Your task to perform on an android device: Open Chrome and go to settings Image 0: 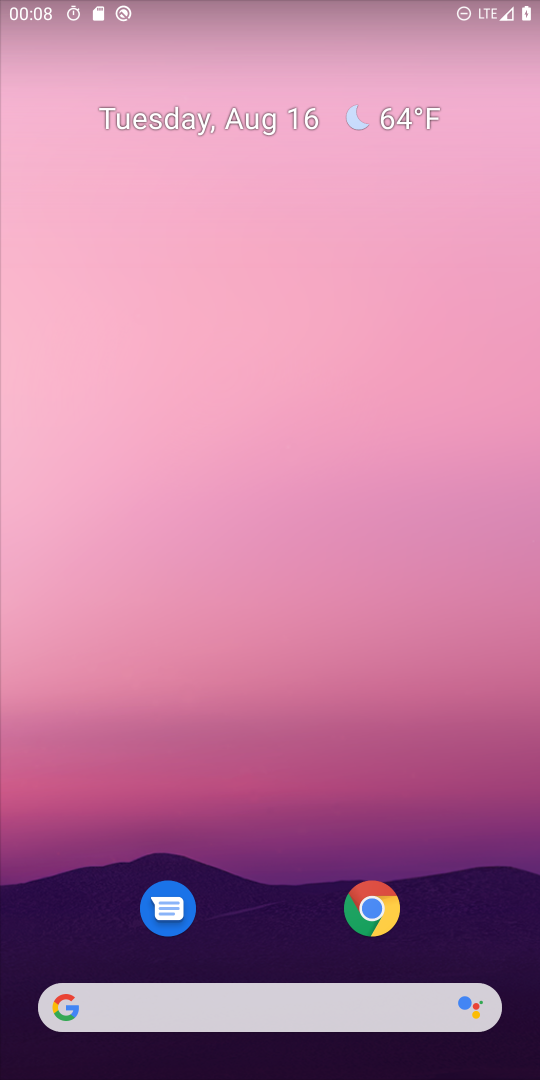
Step 0: click (369, 914)
Your task to perform on an android device: Open Chrome and go to settings Image 1: 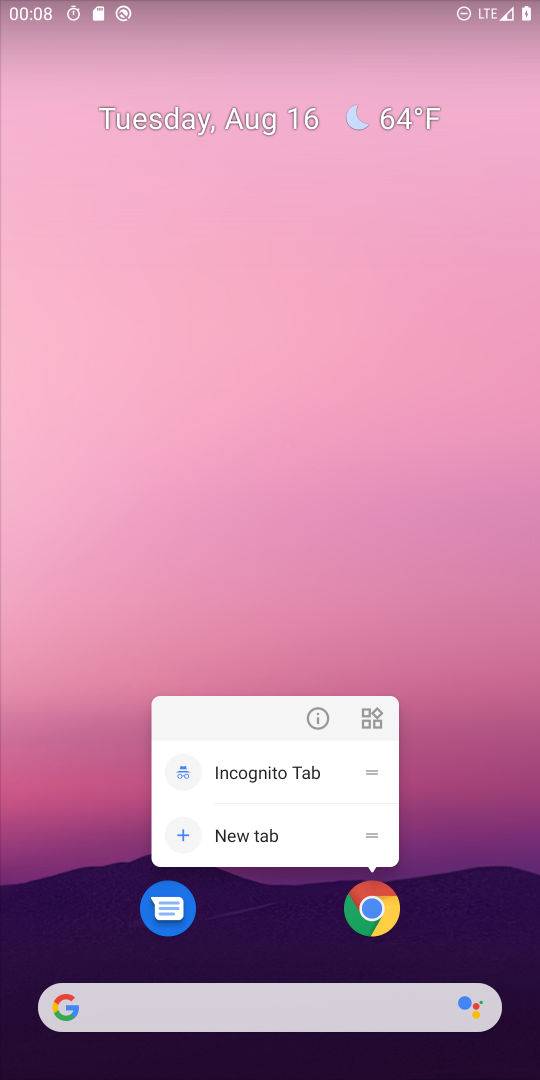
Step 1: click (373, 908)
Your task to perform on an android device: Open Chrome and go to settings Image 2: 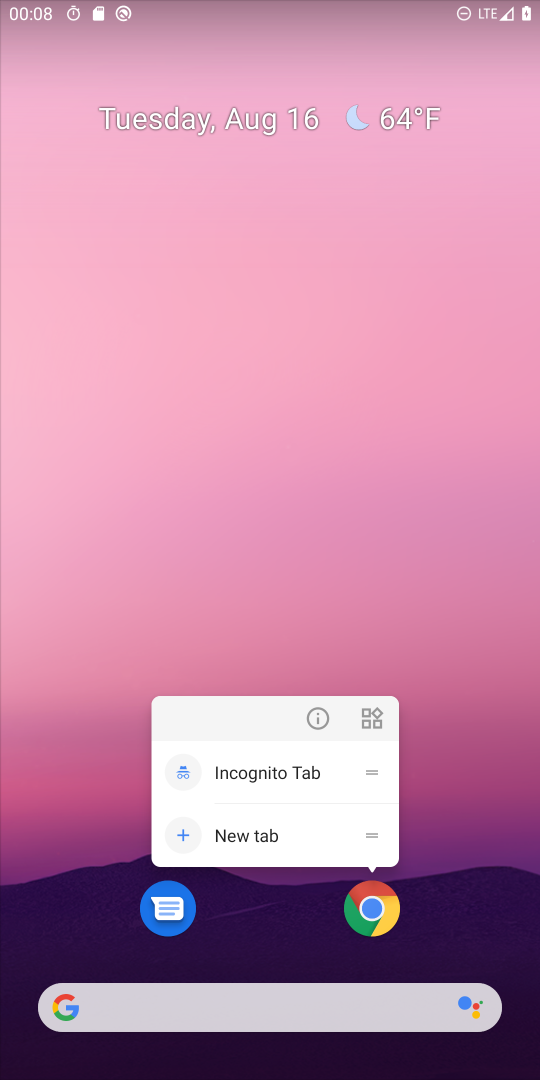
Step 2: click (371, 910)
Your task to perform on an android device: Open Chrome and go to settings Image 3: 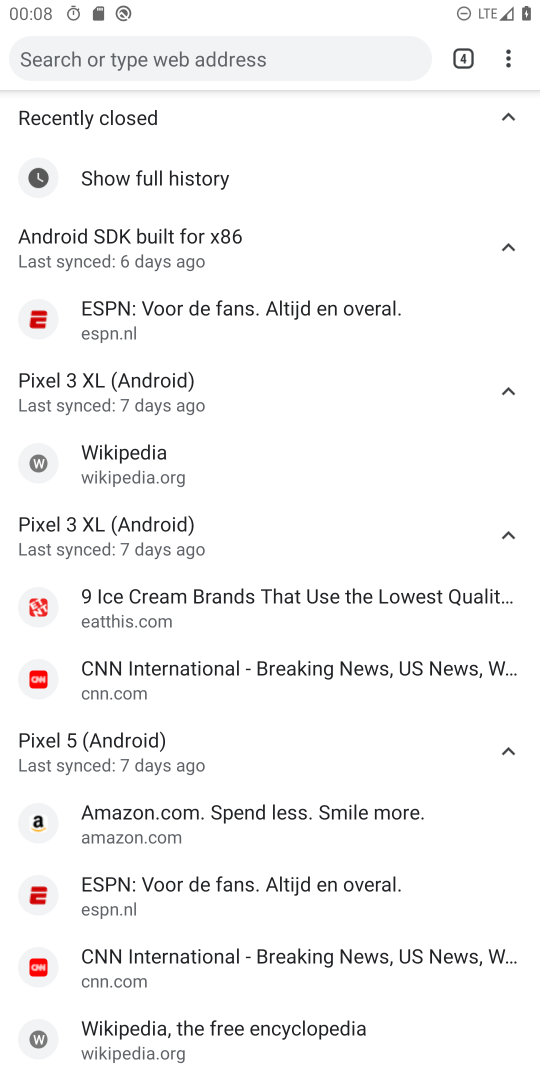
Step 3: click (517, 55)
Your task to perform on an android device: Open Chrome and go to settings Image 4: 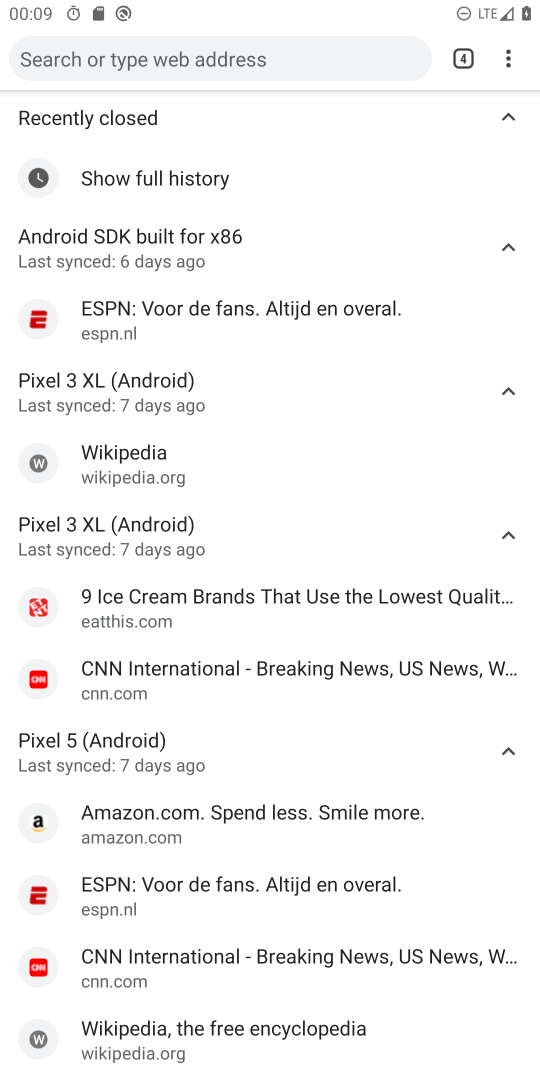
Step 4: click (513, 50)
Your task to perform on an android device: Open Chrome and go to settings Image 5: 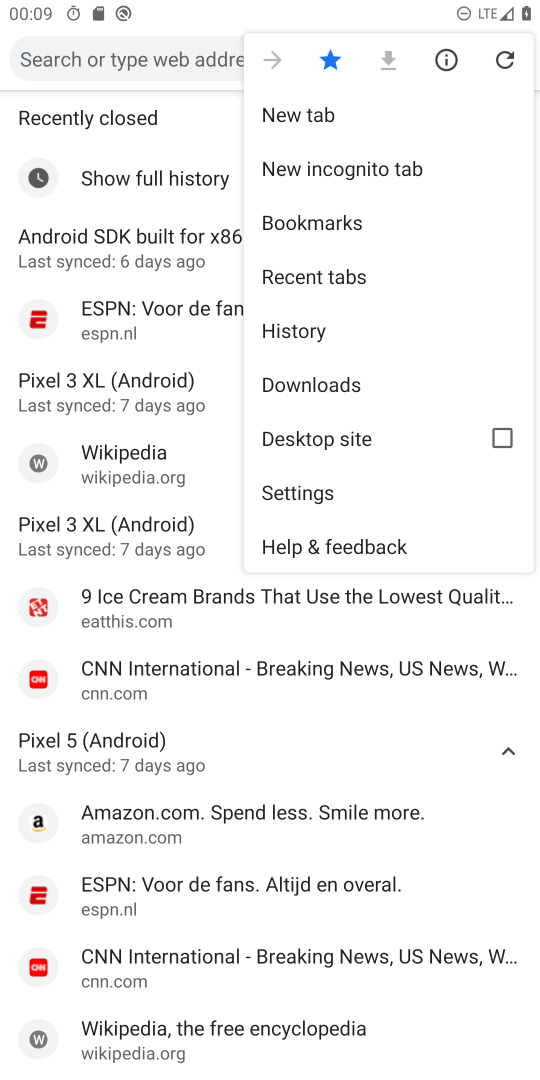
Step 5: click (296, 487)
Your task to perform on an android device: Open Chrome and go to settings Image 6: 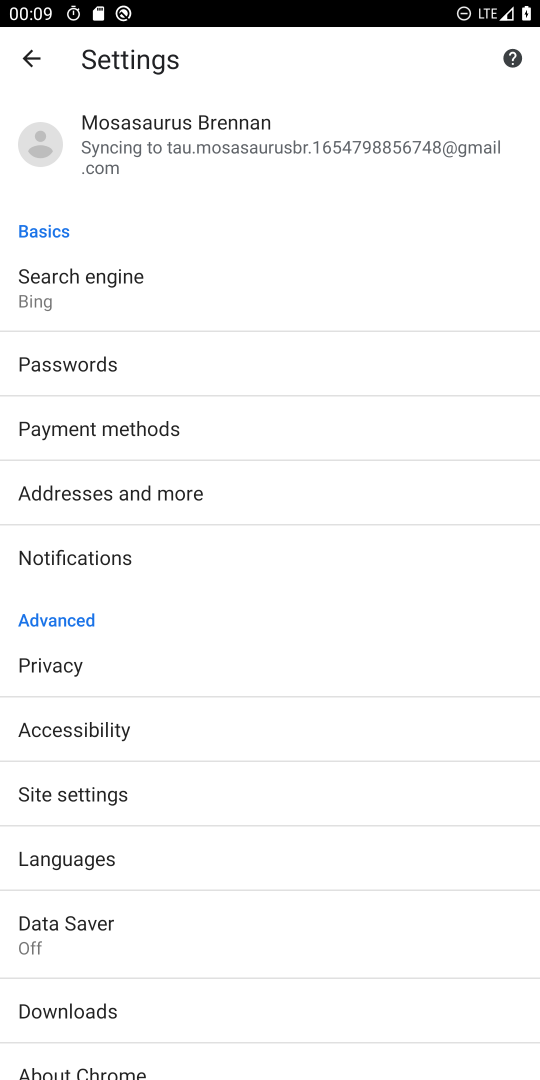
Step 6: task complete